Your task to perform on an android device: Open Chrome and go to the settings page Image 0: 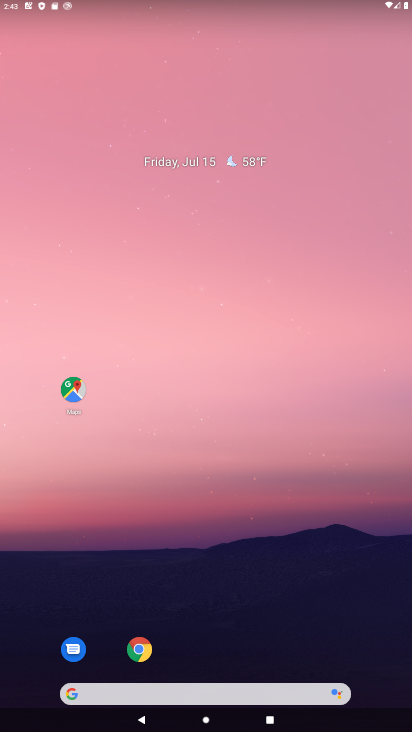
Step 0: click (142, 651)
Your task to perform on an android device: Open Chrome and go to the settings page Image 1: 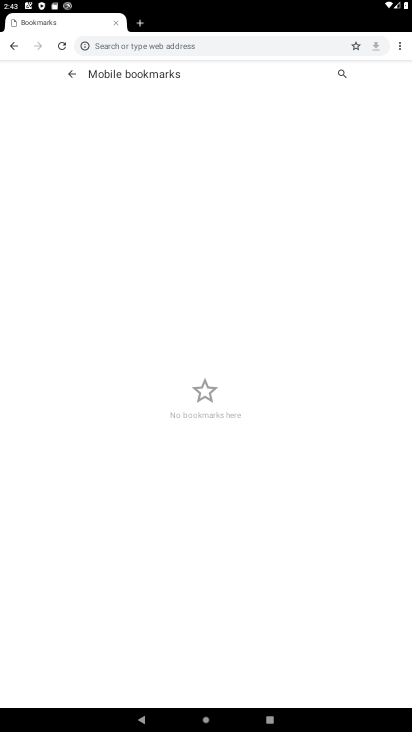
Step 1: click (398, 49)
Your task to perform on an android device: Open Chrome and go to the settings page Image 2: 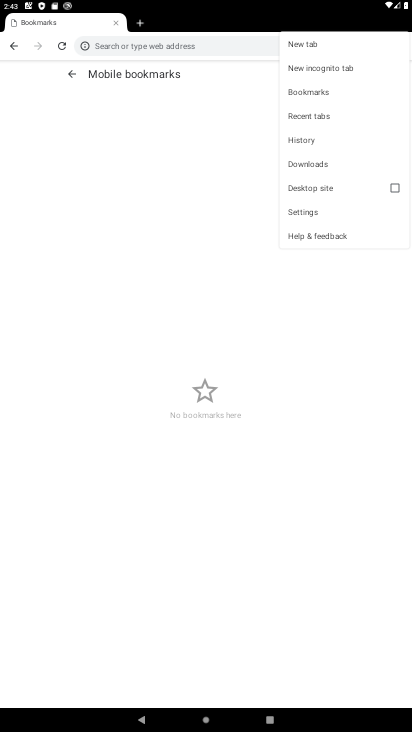
Step 2: click (302, 209)
Your task to perform on an android device: Open Chrome and go to the settings page Image 3: 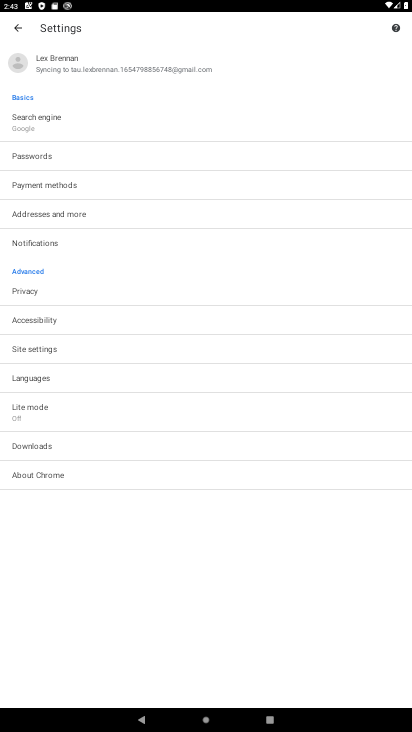
Step 3: task complete